Your task to perform on an android device: Open Wikipedia Image 0: 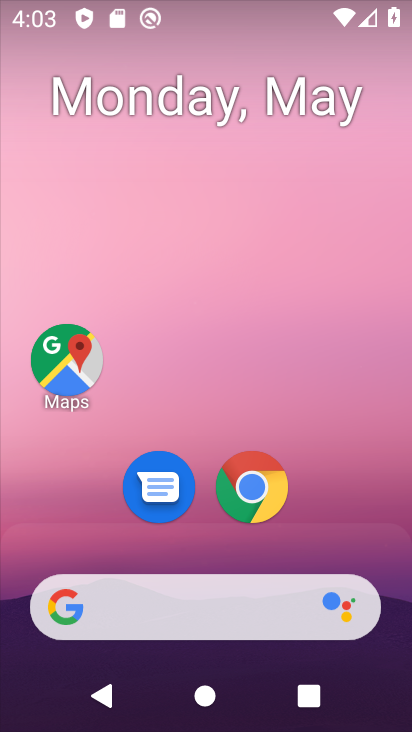
Step 0: click (238, 493)
Your task to perform on an android device: Open Wikipedia Image 1: 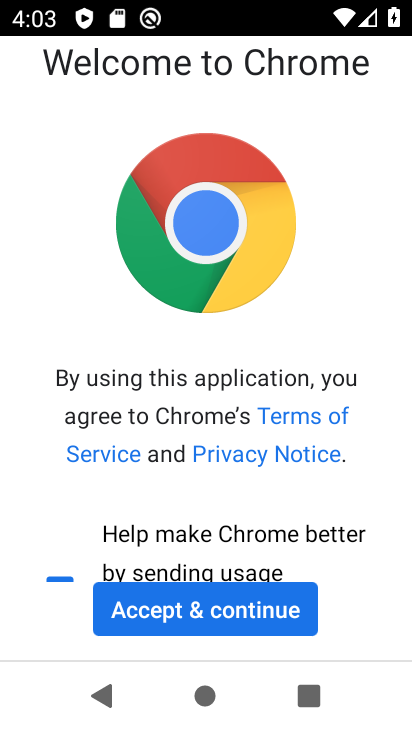
Step 1: click (203, 618)
Your task to perform on an android device: Open Wikipedia Image 2: 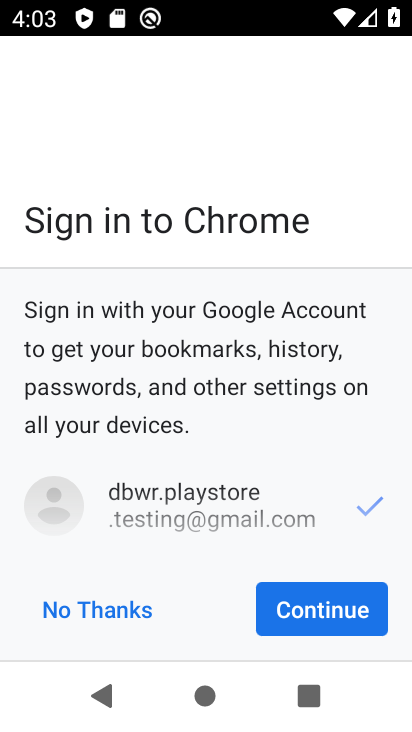
Step 2: click (310, 630)
Your task to perform on an android device: Open Wikipedia Image 3: 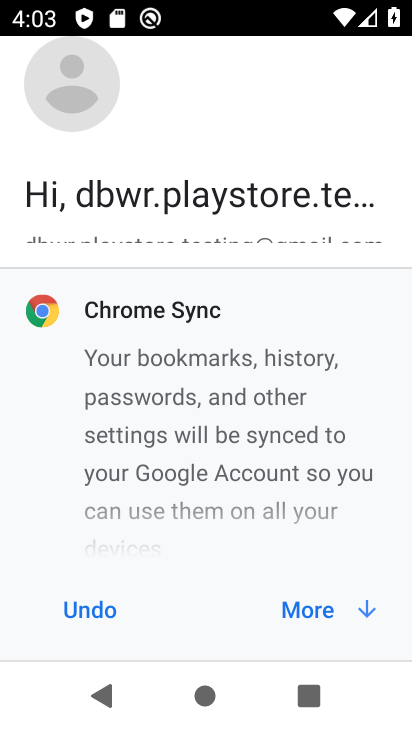
Step 3: click (321, 606)
Your task to perform on an android device: Open Wikipedia Image 4: 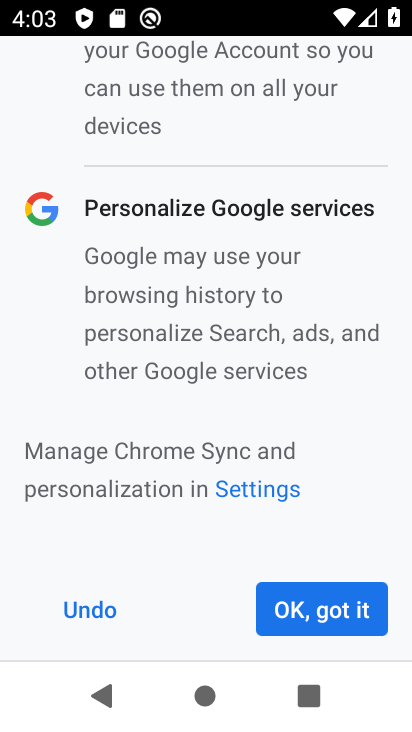
Step 4: click (339, 606)
Your task to perform on an android device: Open Wikipedia Image 5: 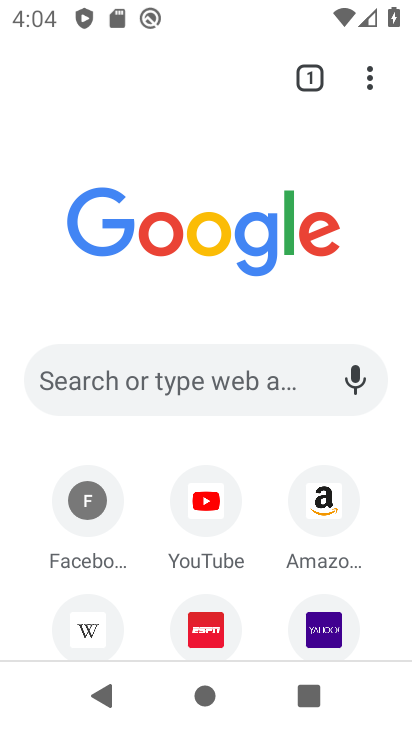
Step 5: click (78, 643)
Your task to perform on an android device: Open Wikipedia Image 6: 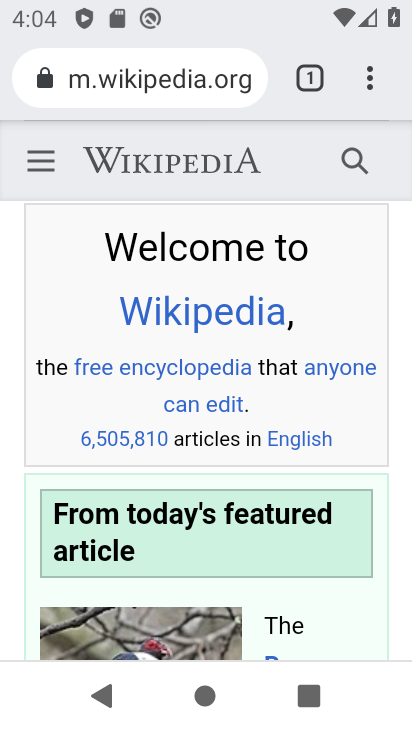
Step 6: task complete